Your task to perform on an android device: change alarm snooze length Image 0: 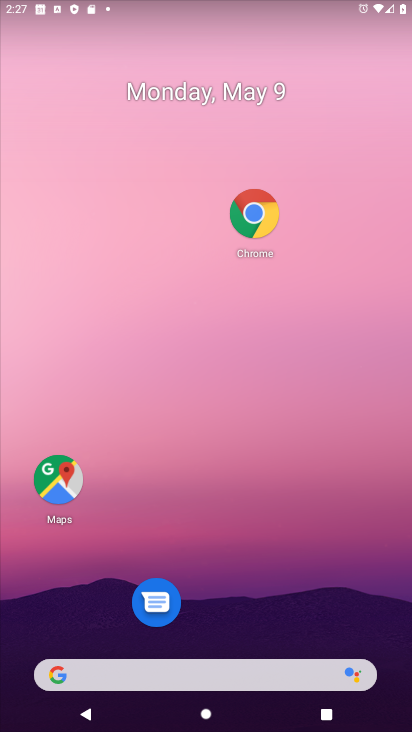
Step 0: drag from (290, 635) to (239, 233)
Your task to perform on an android device: change alarm snooze length Image 1: 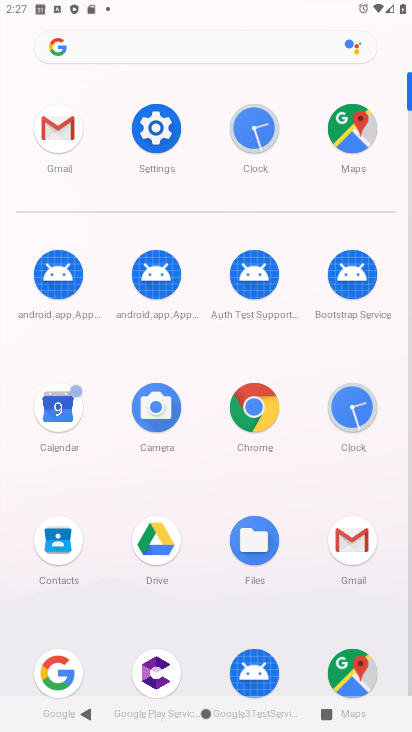
Step 1: click (255, 139)
Your task to perform on an android device: change alarm snooze length Image 2: 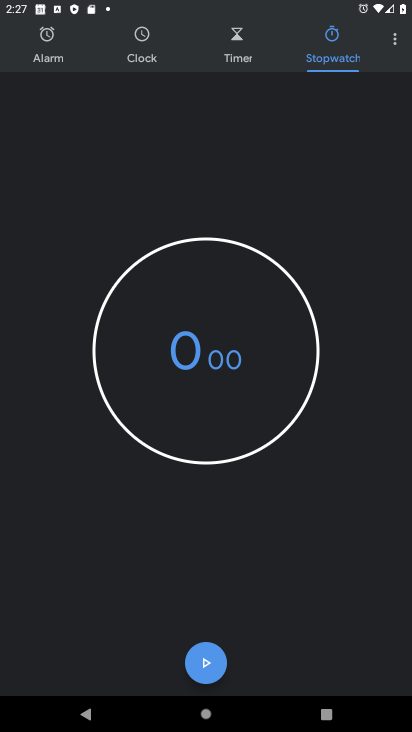
Step 2: click (405, 35)
Your task to perform on an android device: change alarm snooze length Image 3: 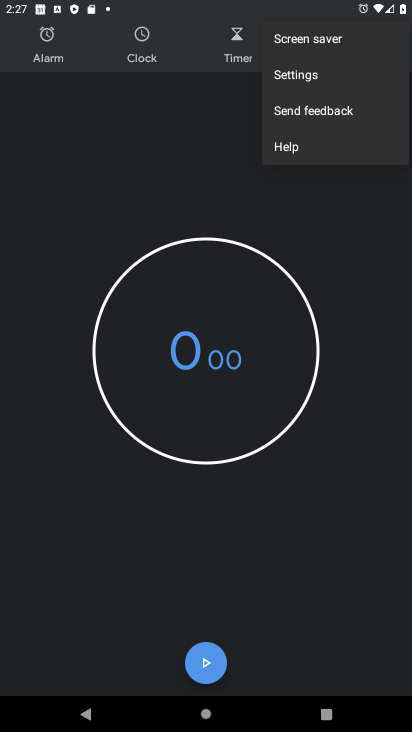
Step 3: click (353, 75)
Your task to perform on an android device: change alarm snooze length Image 4: 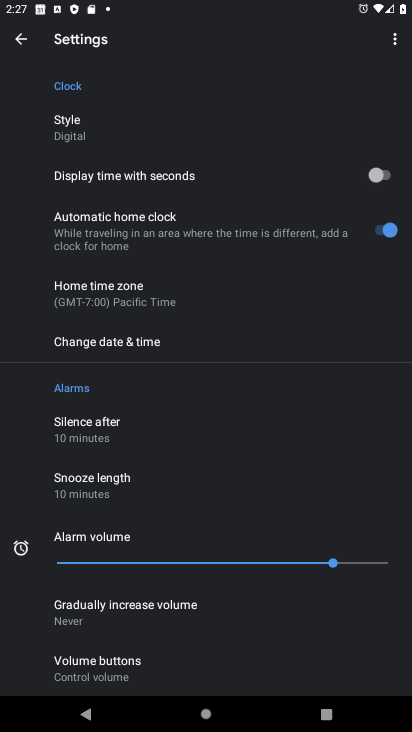
Step 4: drag from (211, 460) to (227, 260)
Your task to perform on an android device: change alarm snooze length Image 5: 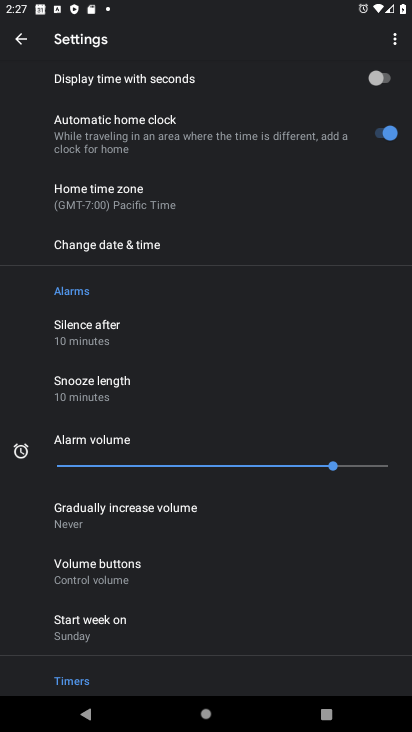
Step 5: click (174, 392)
Your task to perform on an android device: change alarm snooze length Image 6: 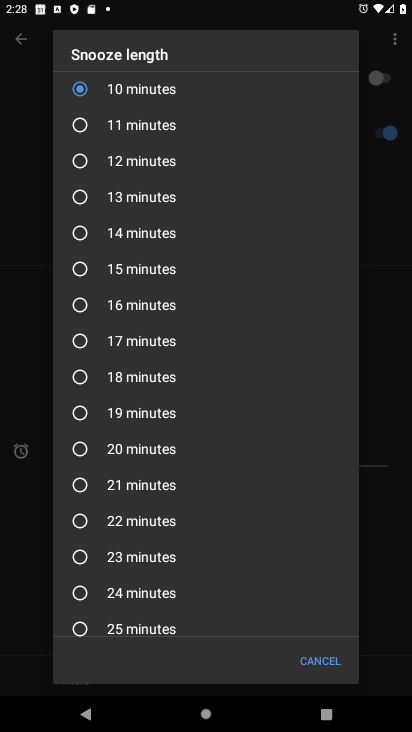
Step 6: click (242, 216)
Your task to perform on an android device: change alarm snooze length Image 7: 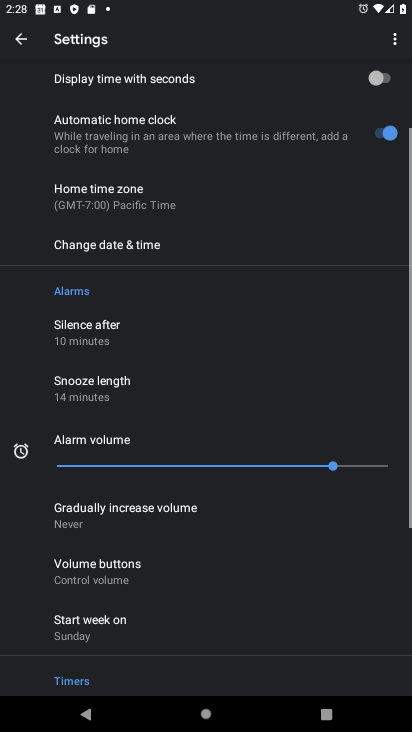
Step 7: task complete